Your task to perform on an android device: Open Google Image 0: 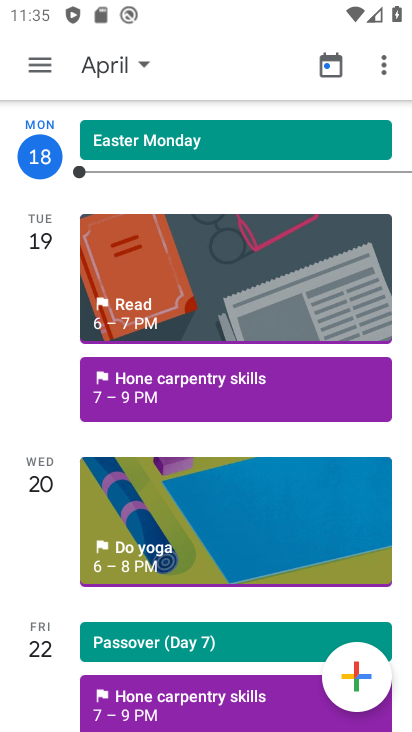
Step 0: press home button
Your task to perform on an android device: Open Google Image 1: 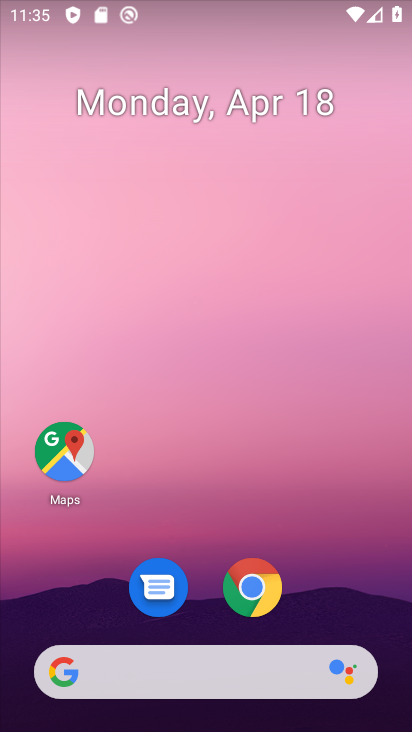
Step 1: drag from (196, 515) to (202, 315)
Your task to perform on an android device: Open Google Image 2: 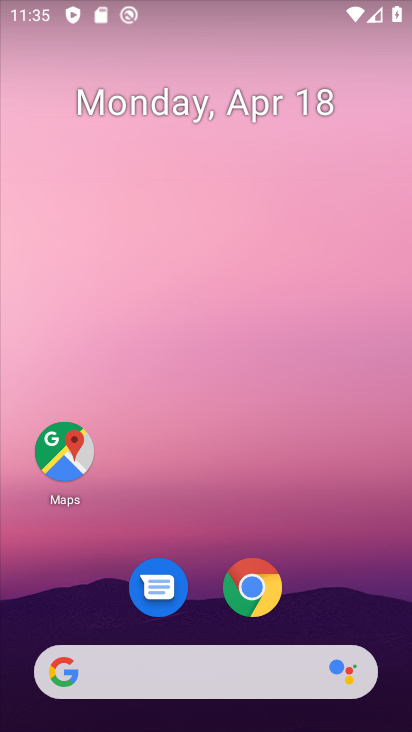
Step 2: drag from (210, 649) to (212, 299)
Your task to perform on an android device: Open Google Image 3: 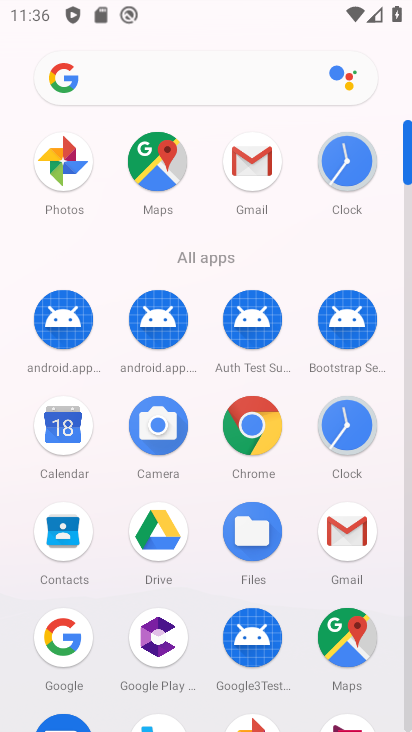
Step 3: click (59, 633)
Your task to perform on an android device: Open Google Image 4: 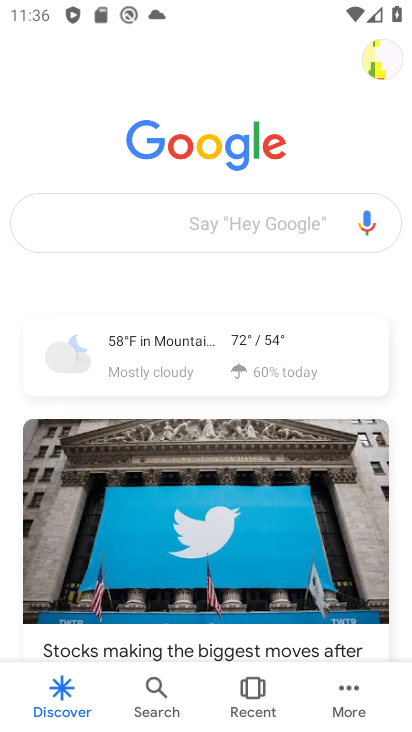
Step 4: task complete